Your task to perform on an android device: Open wifi settings Image 0: 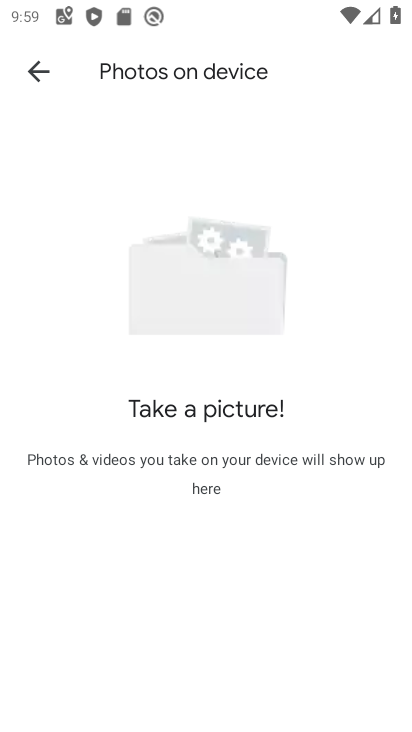
Step 0: press home button
Your task to perform on an android device: Open wifi settings Image 1: 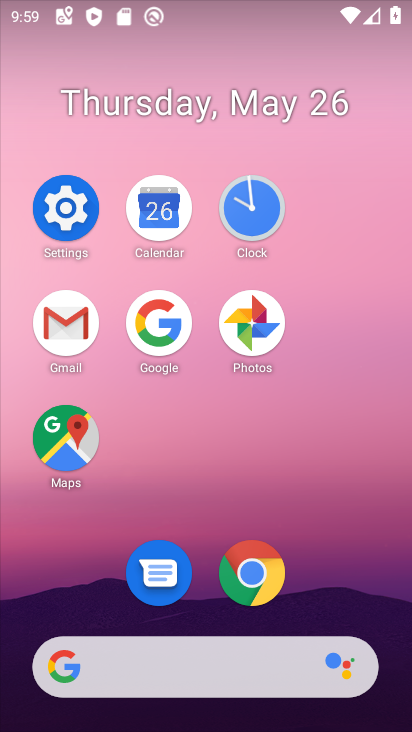
Step 1: click (59, 217)
Your task to perform on an android device: Open wifi settings Image 2: 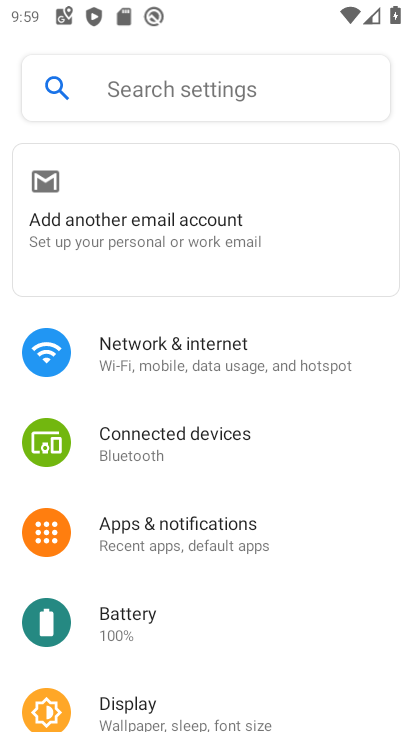
Step 2: click (197, 350)
Your task to perform on an android device: Open wifi settings Image 3: 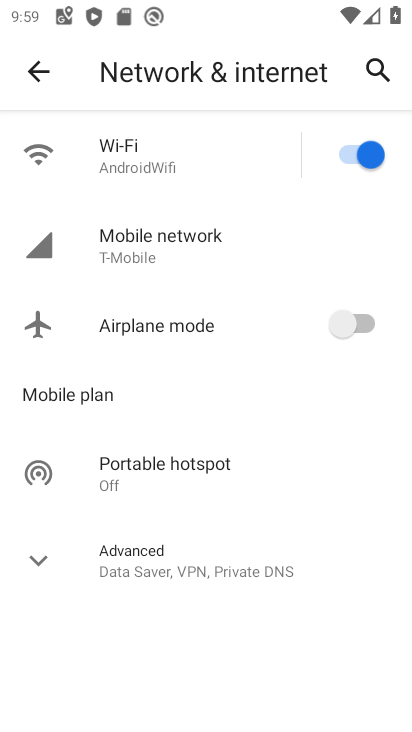
Step 3: click (127, 168)
Your task to perform on an android device: Open wifi settings Image 4: 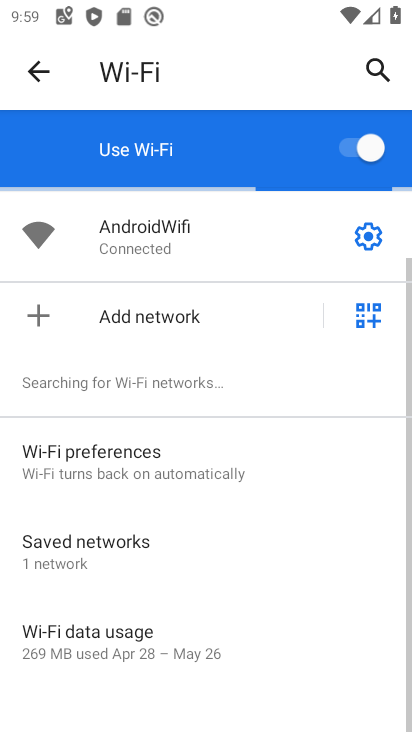
Step 4: click (369, 232)
Your task to perform on an android device: Open wifi settings Image 5: 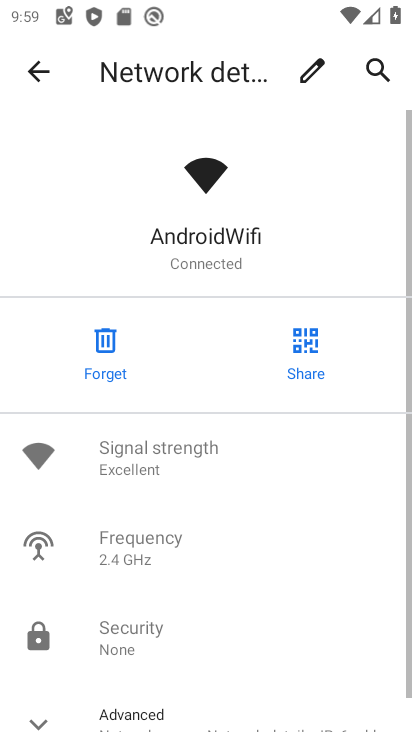
Step 5: task complete